Your task to perform on an android device: Search for pizza restaurants on Maps Image 0: 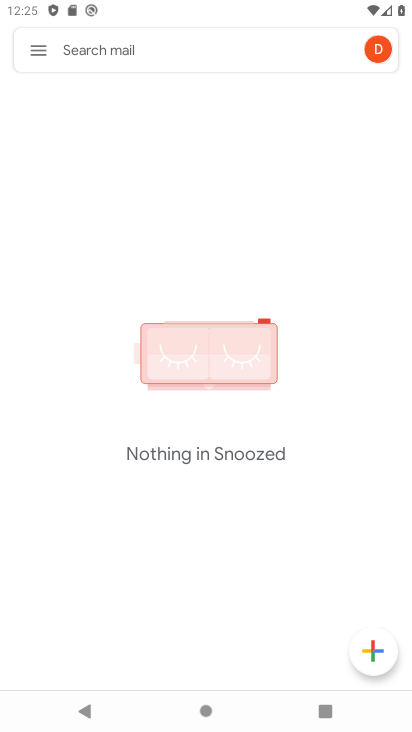
Step 0: press home button
Your task to perform on an android device: Search for pizza restaurants on Maps Image 1: 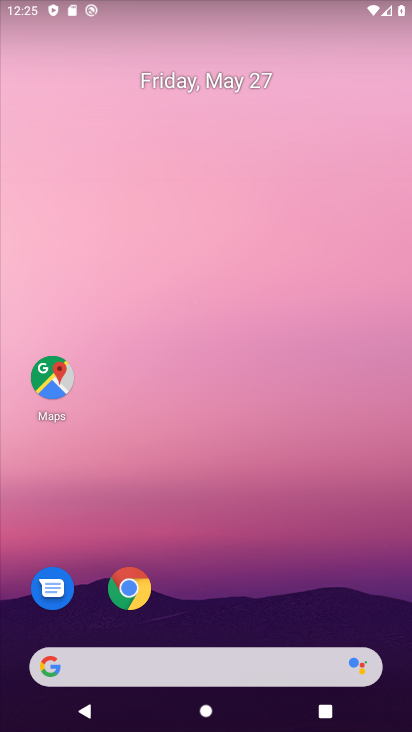
Step 1: click (46, 375)
Your task to perform on an android device: Search for pizza restaurants on Maps Image 2: 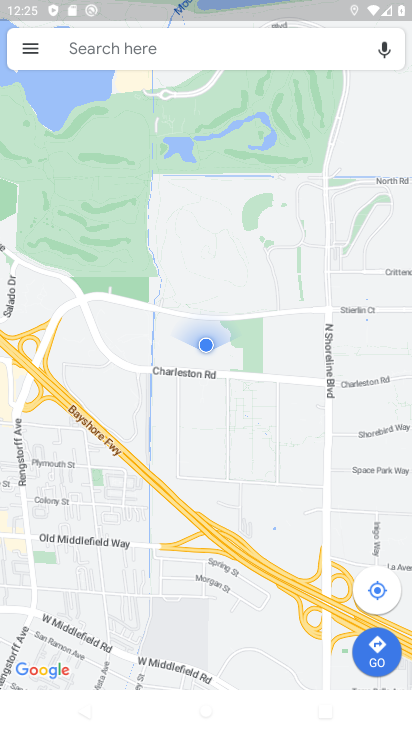
Step 2: click (241, 59)
Your task to perform on an android device: Search for pizza restaurants on Maps Image 3: 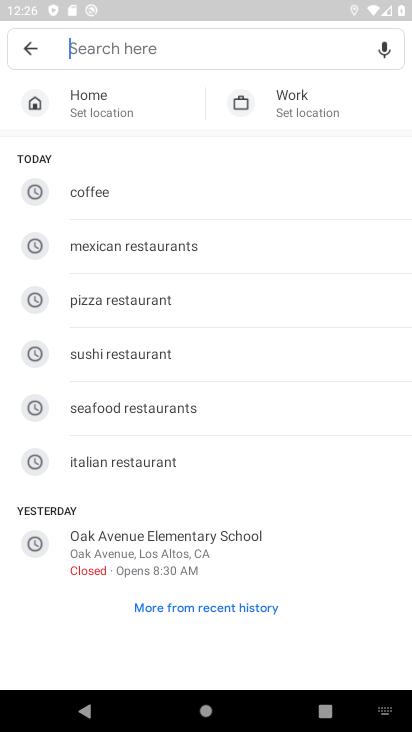
Step 3: type "pizza restaurants"
Your task to perform on an android device: Search for pizza restaurants on Maps Image 4: 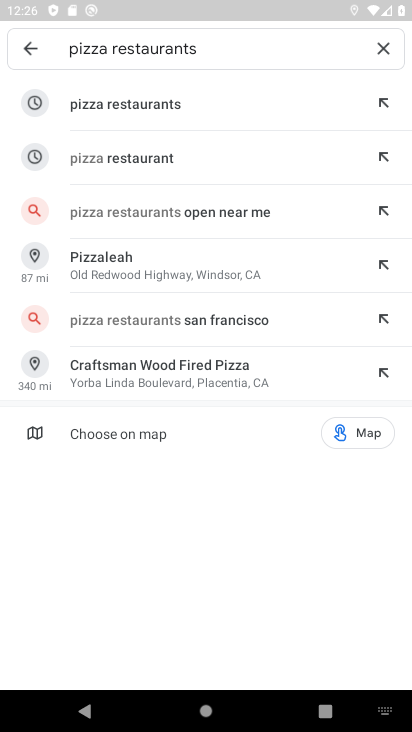
Step 4: click (166, 102)
Your task to perform on an android device: Search for pizza restaurants on Maps Image 5: 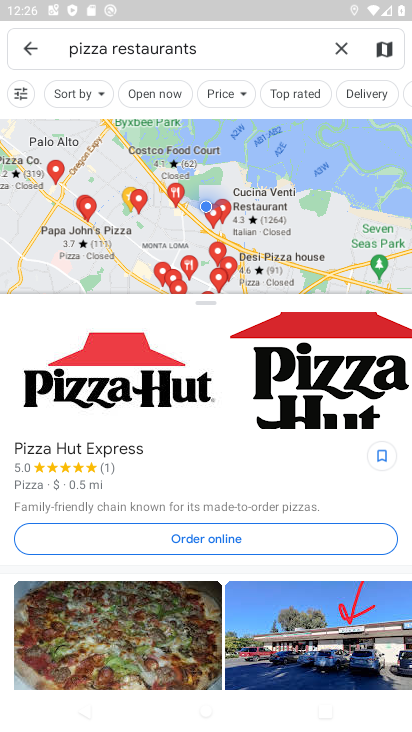
Step 5: task complete